Your task to perform on an android device: open a bookmark in the chrome app Image 0: 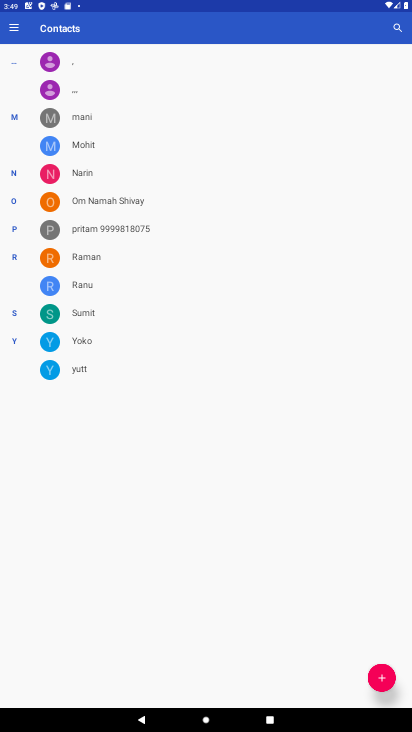
Step 0: press home button
Your task to perform on an android device: open a bookmark in the chrome app Image 1: 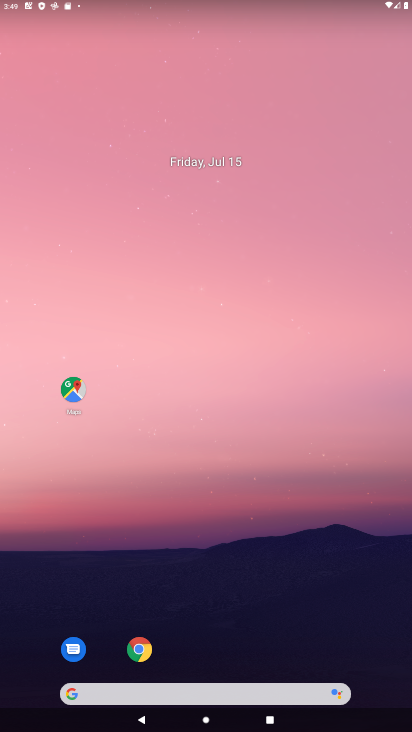
Step 1: drag from (268, 640) to (274, 153)
Your task to perform on an android device: open a bookmark in the chrome app Image 2: 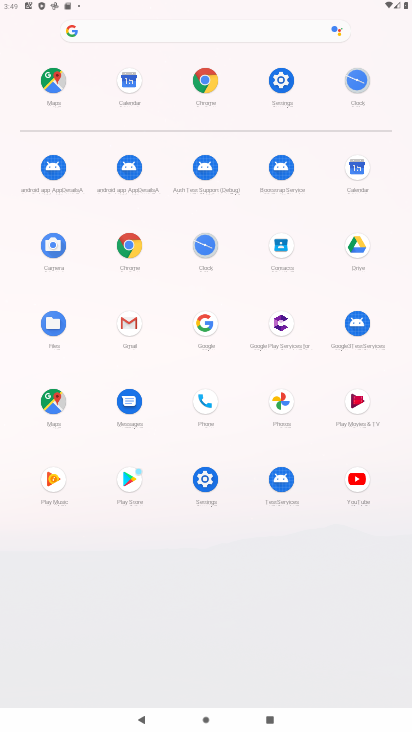
Step 2: click (126, 248)
Your task to perform on an android device: open a bookmark in the chrome app Image 3: 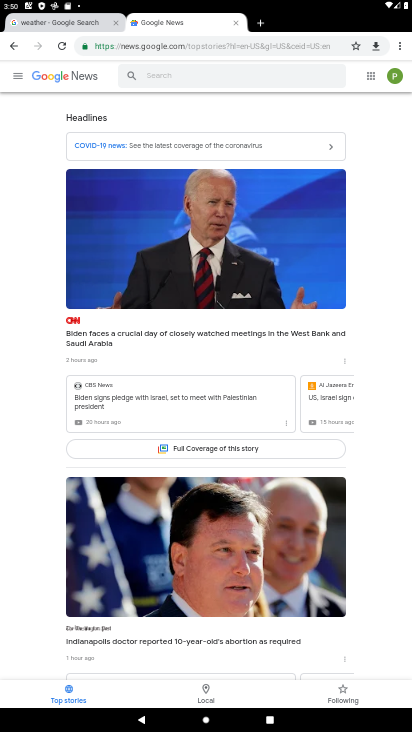
Step 3: drag from (401, 44) to (320, 98)
Your task to perform on an android device: open a bookmark in the chrome app Image 4: 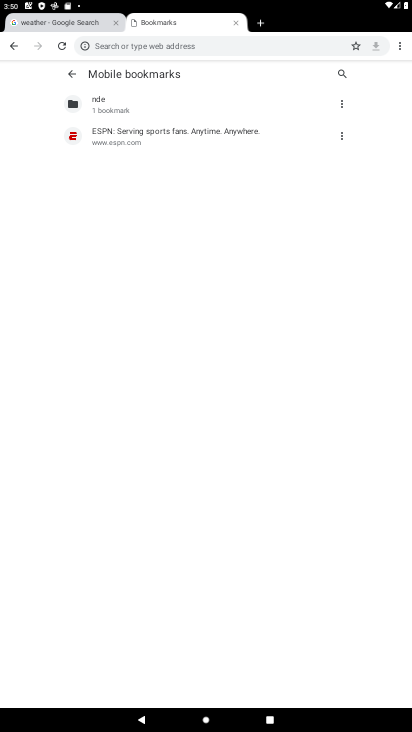
Step 4: click (191, 127)
Your task to perform on an android device: open a bookmark in the chrome app Image 5: 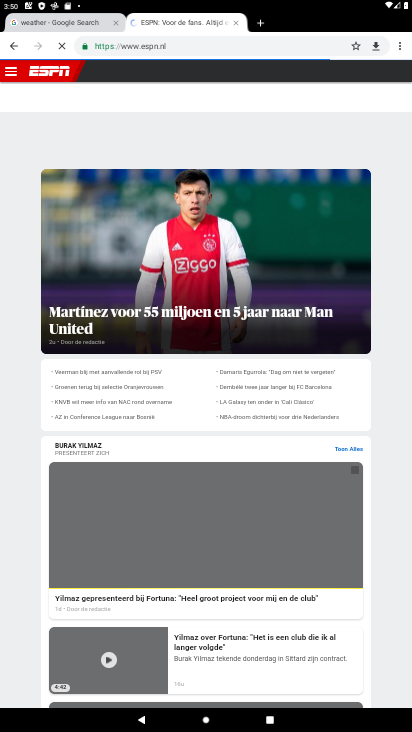
Step 5: task complete